Your task to perform on an android device: Go to sound settings Image 0: 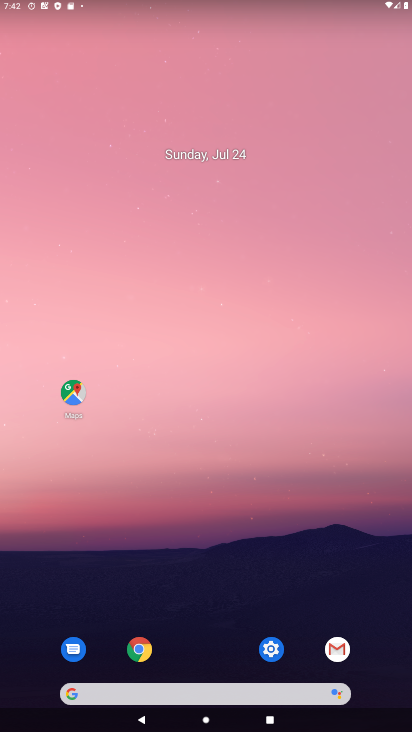
Step 0: click (273, 647)
Your task to perform on an android device: Go to sound settings Image 1: 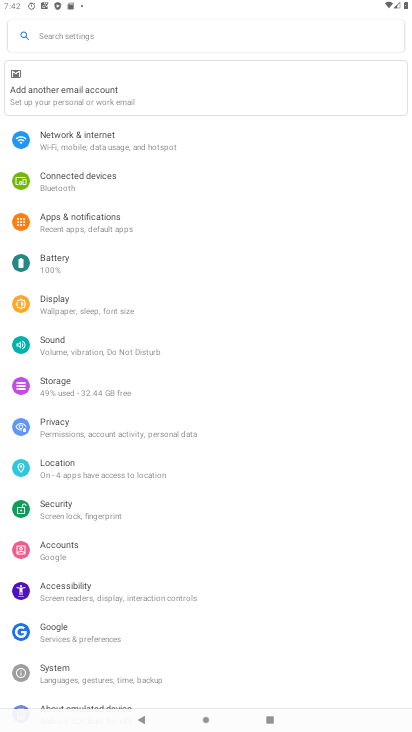
Step 1: click (63, 346)
Your task to perform on an android device: Go to sound settings Image 2: 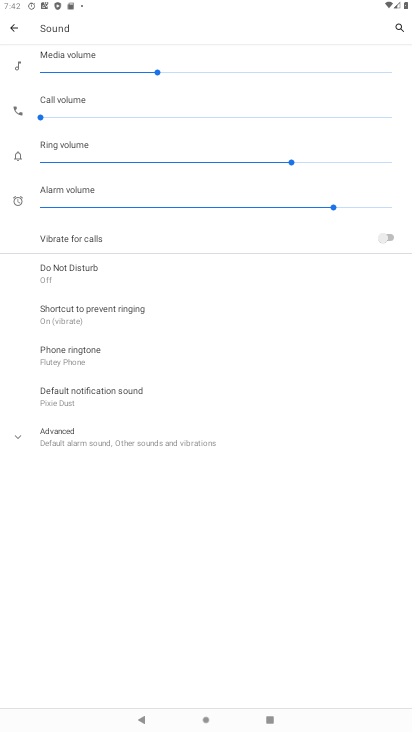
Step 2: task complete